Your task to perform on an android device: Go to CNN.com Image 0: 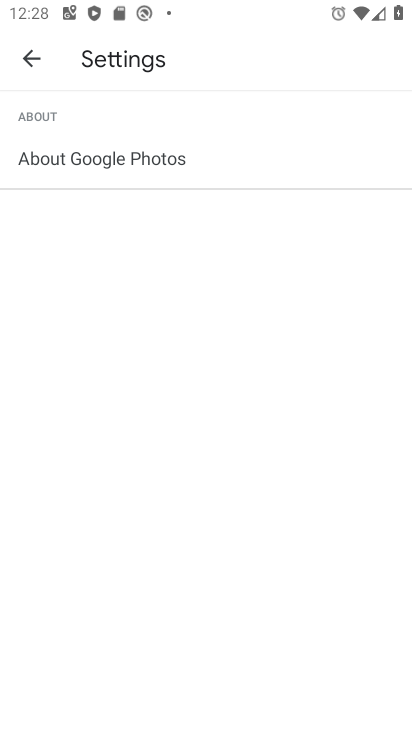
Step 0: press home button
Your task to perform on an android device: Go to CNN.com Image 1: 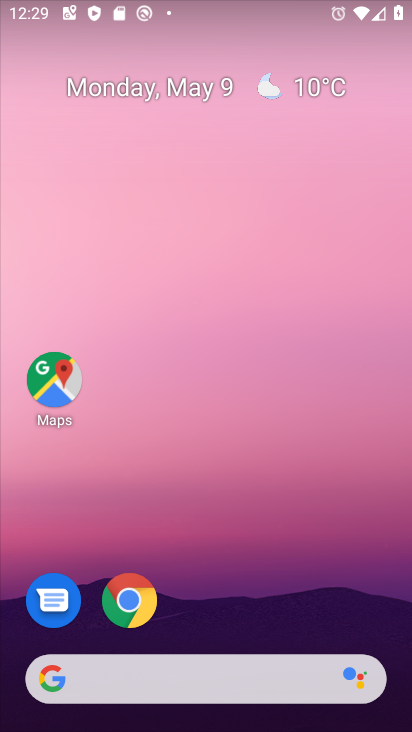
Step 1: click (131, 602)
Your task to perform on an android device: Go to CNN.com Image 2: 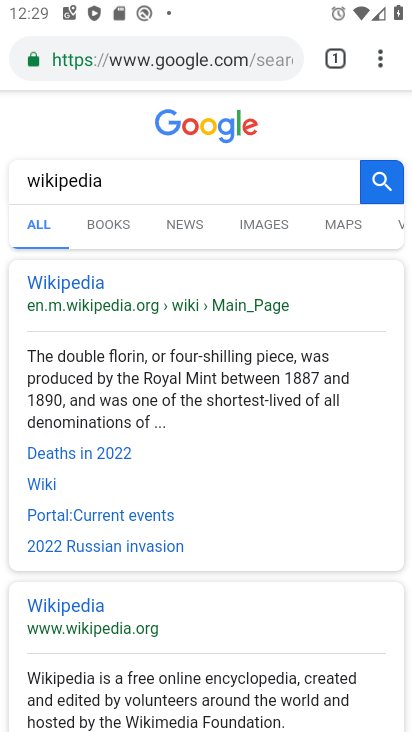
Step 2: click (138, 71)
Your task to perform on an android device: Go to CNN.com Image 3: 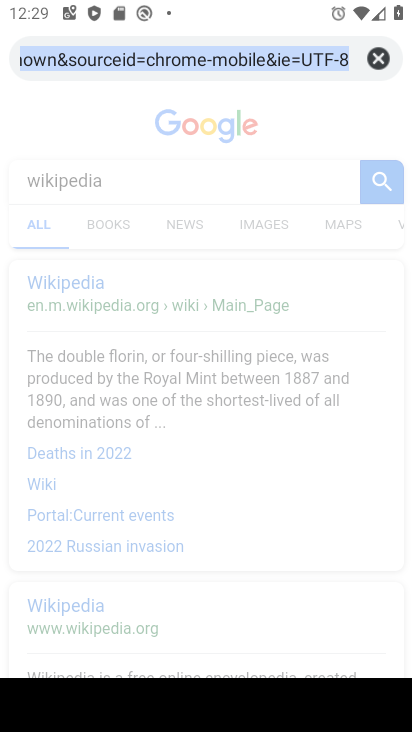
Step 3: type "CNN.com"
Your task to perform on an android device: Go to CNN.com Image 4: 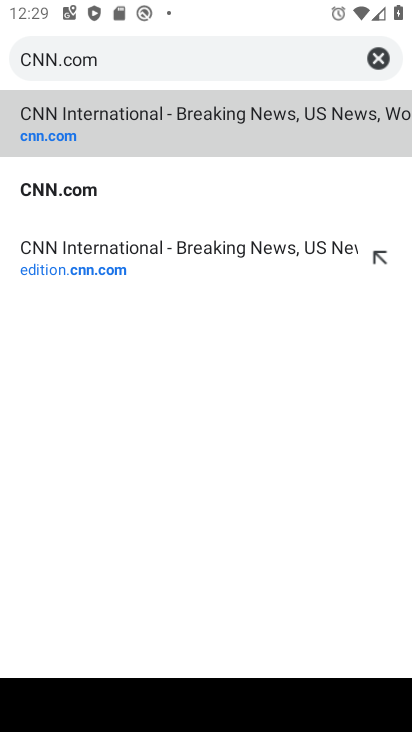
Step 4: click (117, 190)
Your task to perform on an android device: Go to CNN.com Image 5: 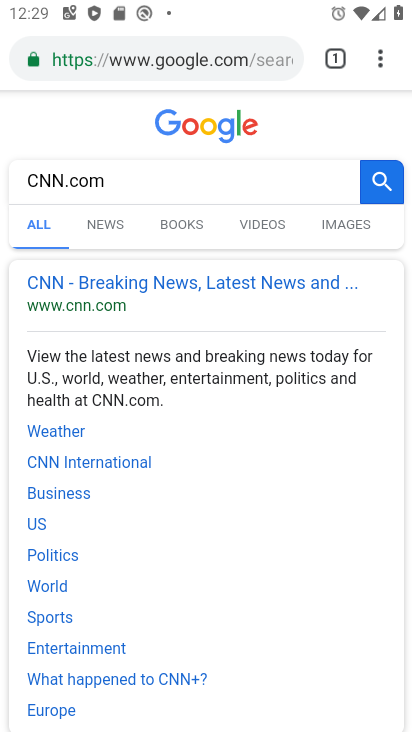
Step 5: task complete